Your task to perform on an android device: turn off notifications settings in the gmail app Image 0: 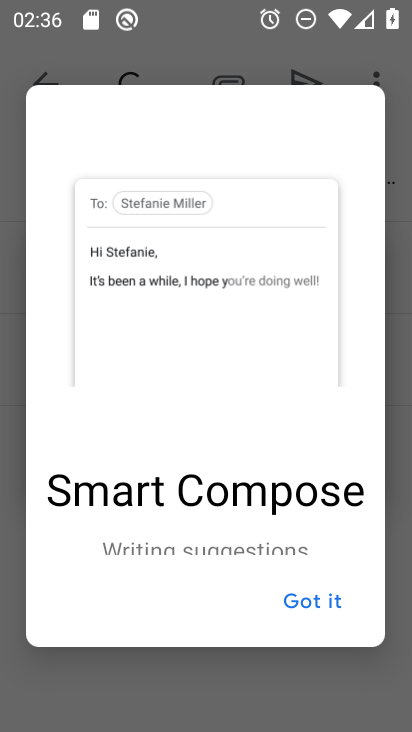
Step 0: press home button
Your task to perform on an android device: turn off notifications settings in the gmail app Image 1: 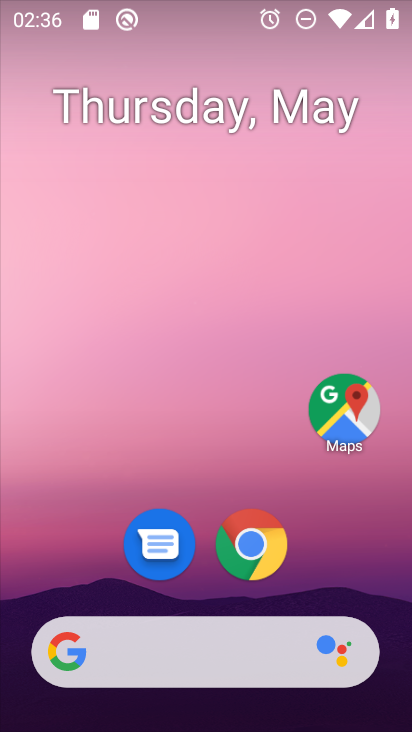
Step 1: drag from (366, 600) to (368, 208)
Your task to perform on an android device: turn off notifications settings in the gmail app Image 2: 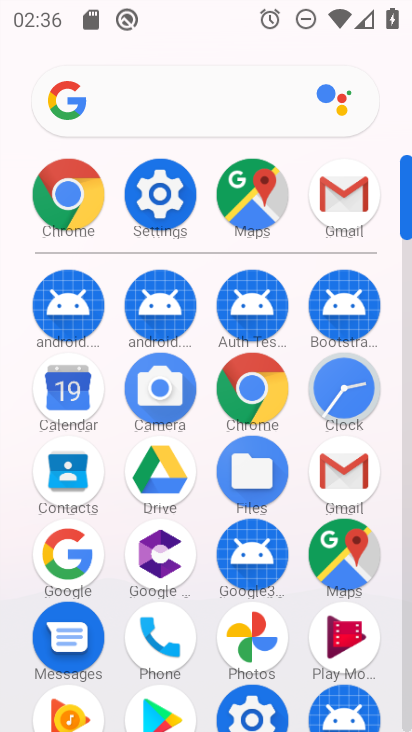
Step 2: click (356, 479)
Your task to perform on an android device: turn off notifications settings in the gmail app Image 3: 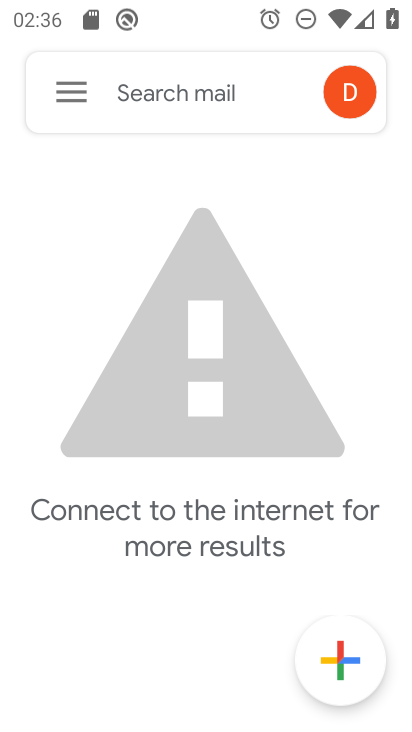
Step 3: click (74, 85)
Your task to perform on an android device: turn off notifications settings in the gmail app Image 4: 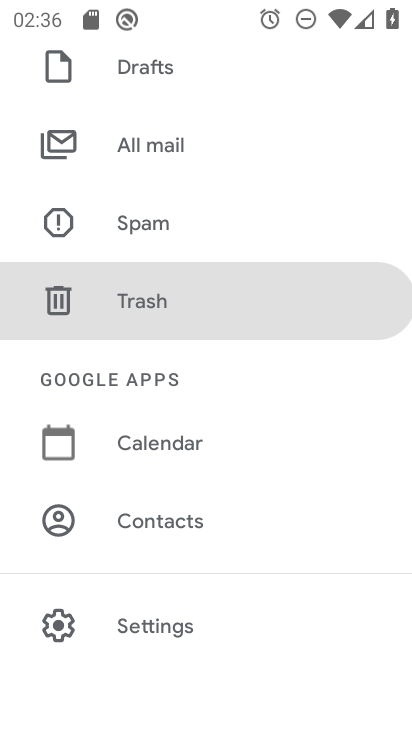
Step 4: drag from (297, 587) to (310, 403)
Your task to perform on an android device: turn off notifications settings in the gmail app Image 5: 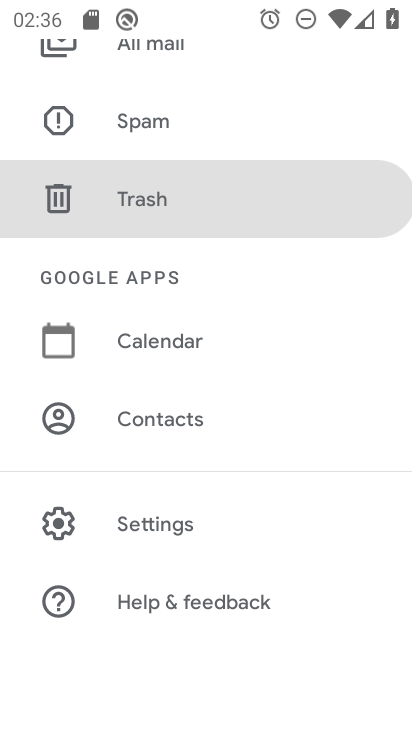
Step 5: drag from (317, 628) to (314, 462)
Your task to perform on an android device: turn off notifications settings in the gmail app Image 6: 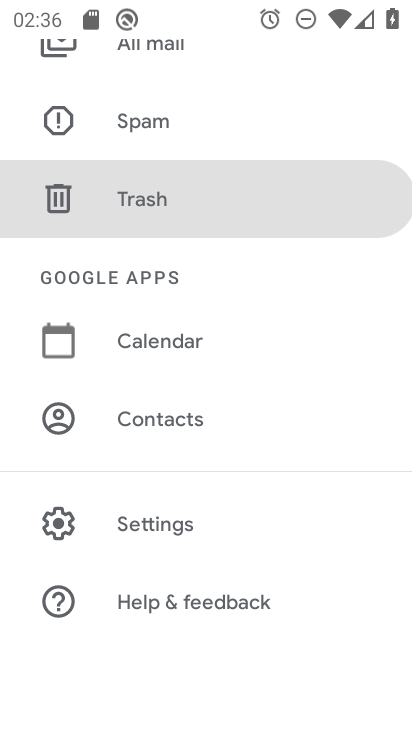
Step 6: drag from (308, 368) to (312, 477)
Your task to perform on an android device: turn off notifications settings in the gmail app Image 7: 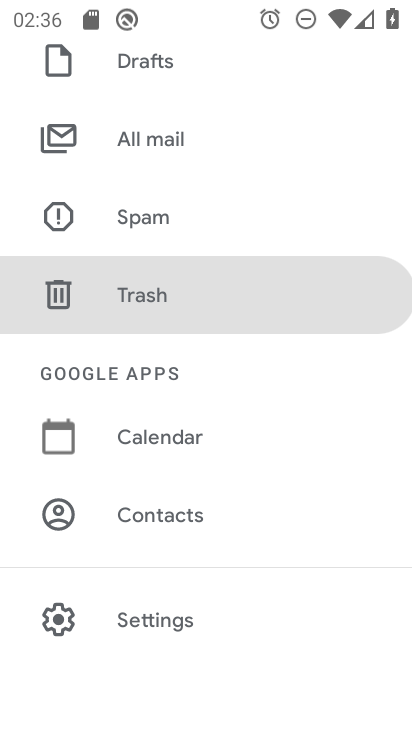
Step 7: drag from (312, 302) to (314, 443)
Your task to perform on an android device: turn off notifications settings in the gmail app Image 8: 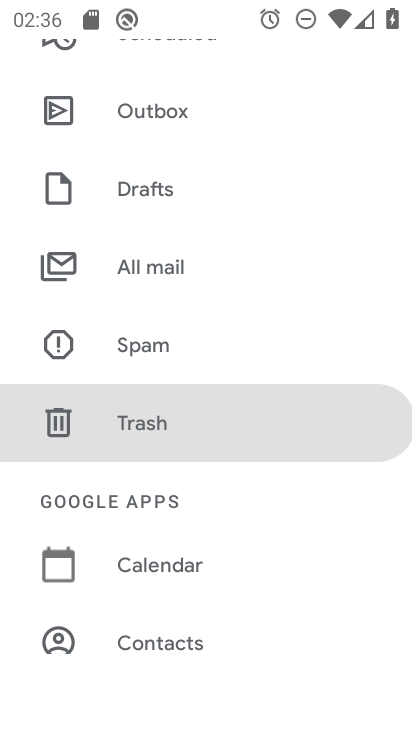
Step 8: drag from (298, 280) to (304, 362)
Your task to perform on an android device: turn off notifications settings in the gmail app Image 9: 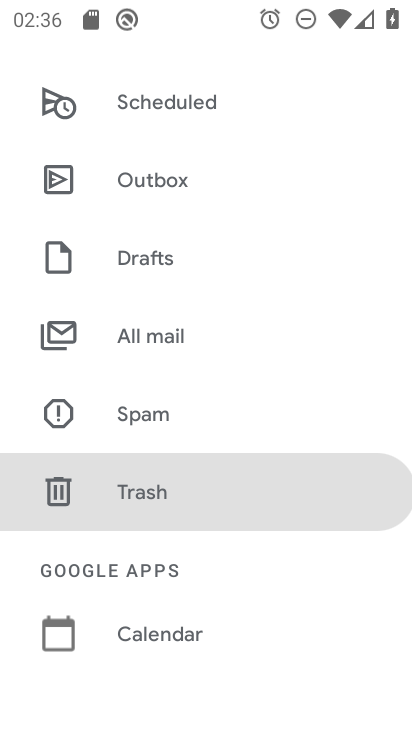
Step 9: drag from (328, 327) to (335, 406)
Your task to perform on an android device: turn off notifications settings in the gmail app Image 10: 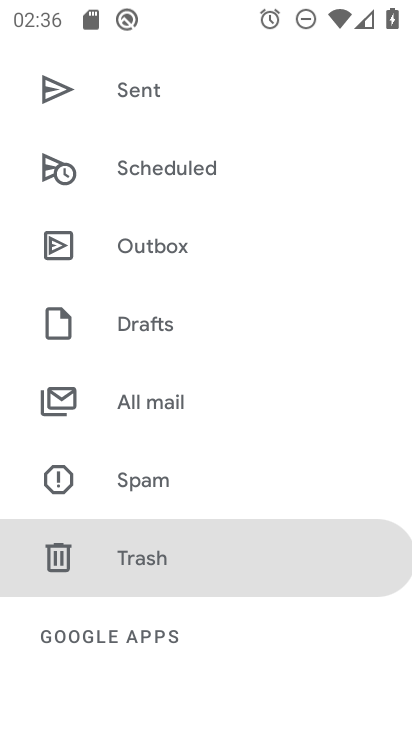
Step 10: drag from (267, 541) to (287, 424)
Your task to perform on an android device: turn off notifications settings in the gmail app Image 11: 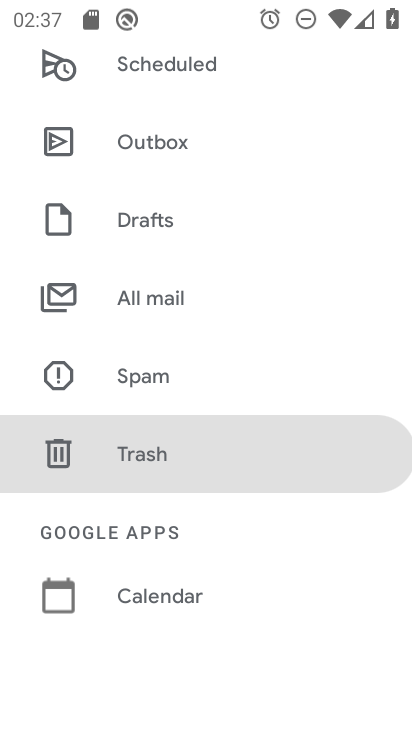
Step 11: drag from (301, 612) to (314, 483)
Your task to perform on an android device: turn off notifications settings in the gmail app Image 12: 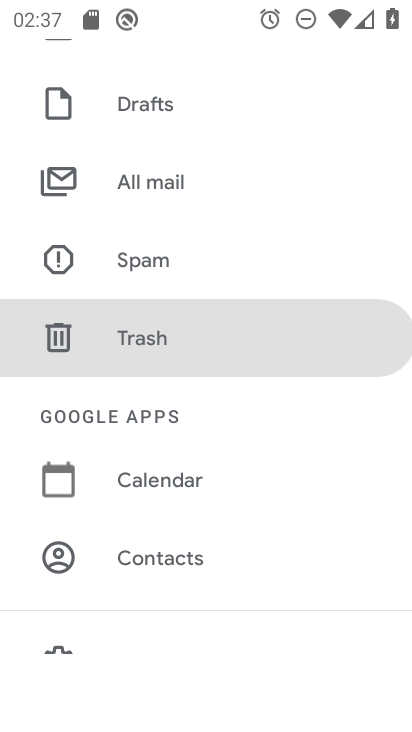
Step 12: drag from (323, 645) to (333, 550)
Your task to perform on an android device: turn off notifications settings in the gmail app Image 13: 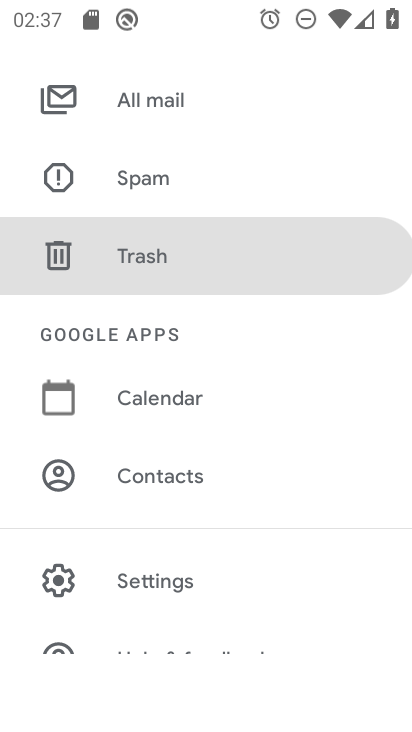
Step 13: drag from (330, 612) to (337, 466)
Your task to perform on an android device: turn off notifications settings in the gmail app Image 14: 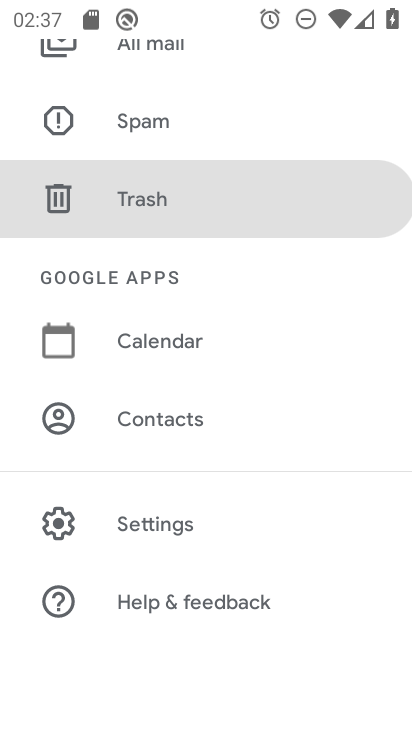
Step 14: click (234, 535)
Your task to perform on an android device: turn off notifications settings in the gmail app Image 15: 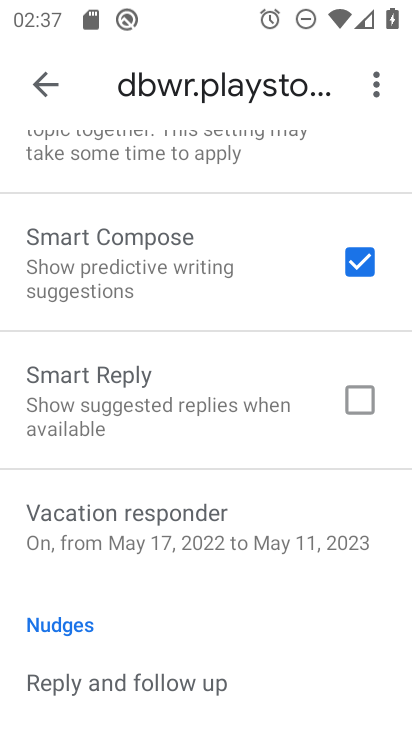
Step 15: drag from (267, 622) to (266, 490)
Your task to perform on an android device: turn off notifications settings in the gmail app Image 16: 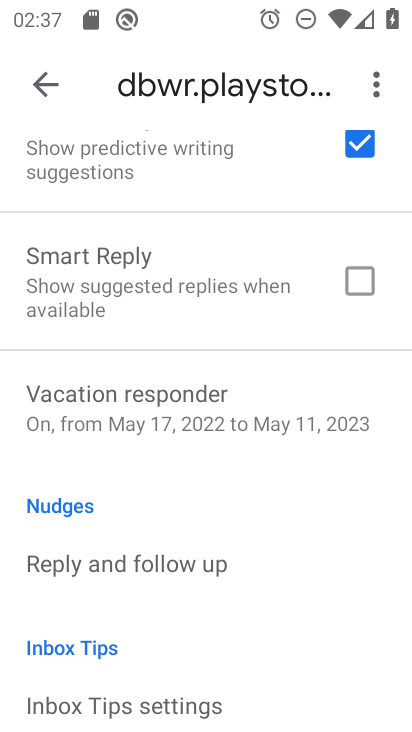
Step 16: drag from (271, 648) to (271, 571)
Your task to perform on an android device: turn off notifications settings in the gmail app Image 17: 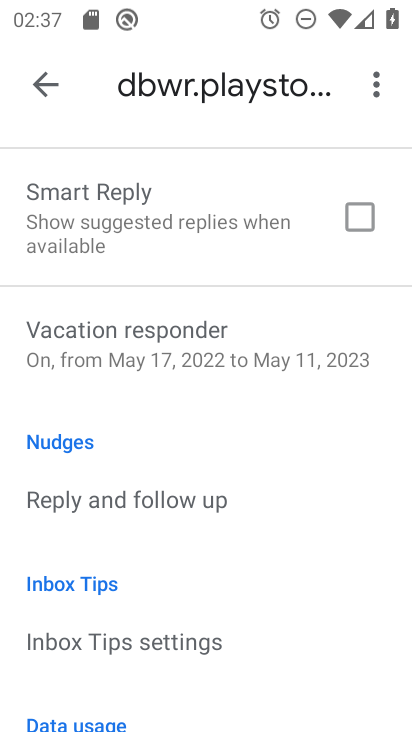
Step 17: drag from (276, 633) to (279, 572)
Your task to perform on an android device: turn off notifications settings in the gmail app Image 18: 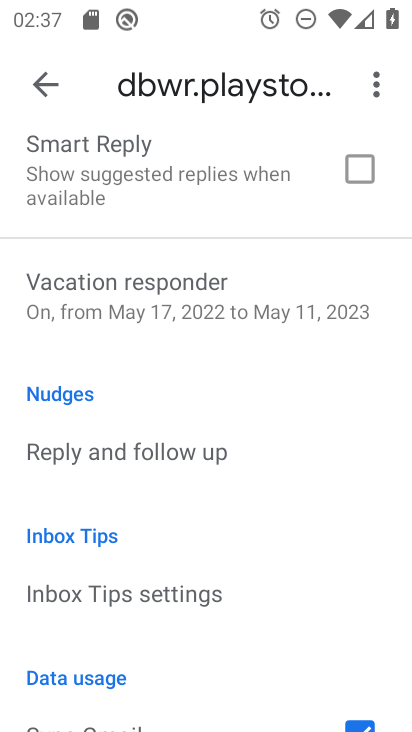
Step 18: drag from (289, 620) to (301, 560)
Your task to perform on an android device: turn off notifications settings in the gmail app Image 19: 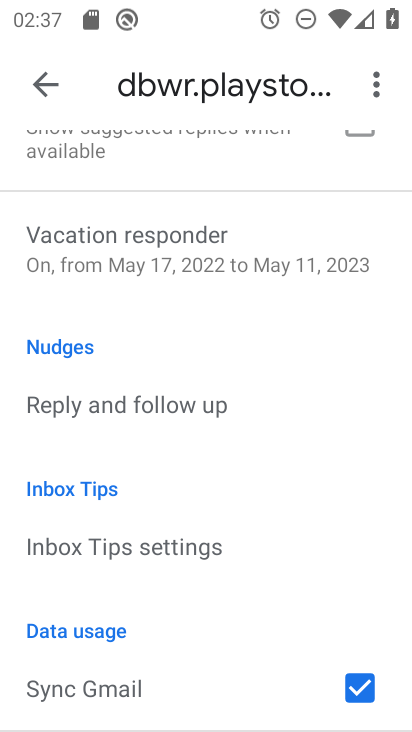
Step 19: drag from (298, 628) to (302, 539)
Your task to perform on an android device: turn off notifications settings in the gmail app Image 20: 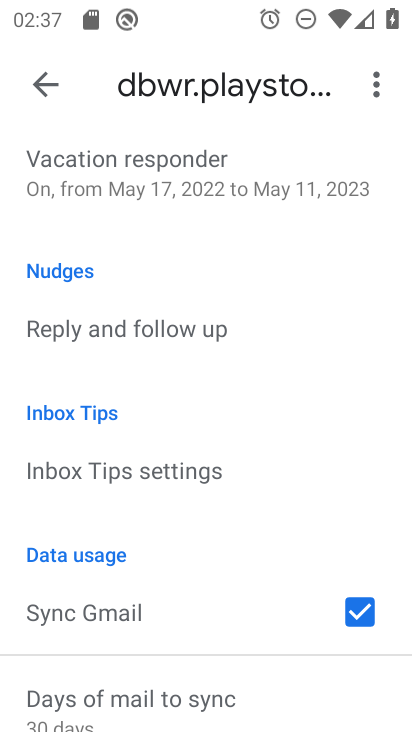
Step 20: drag from (257, 654) to (265, 569)
Your task to perform on an android device: turn off notifications settings in the gmail app Image 21: 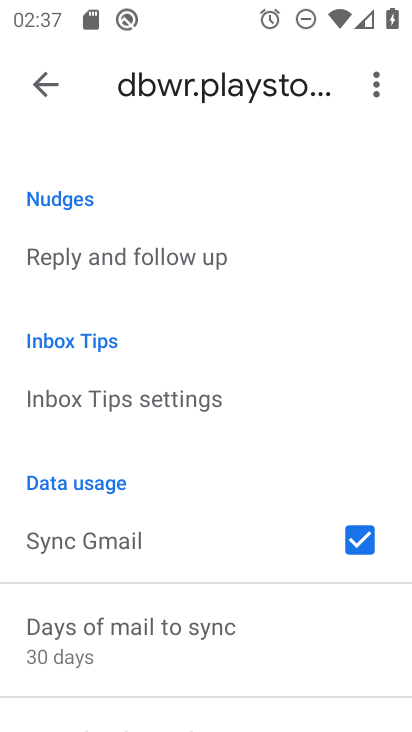
Step 21: drag from (225, 550) to (227, 428)
Your task to perform on an android device: turn off notifications settings in the gmail app Image 22: 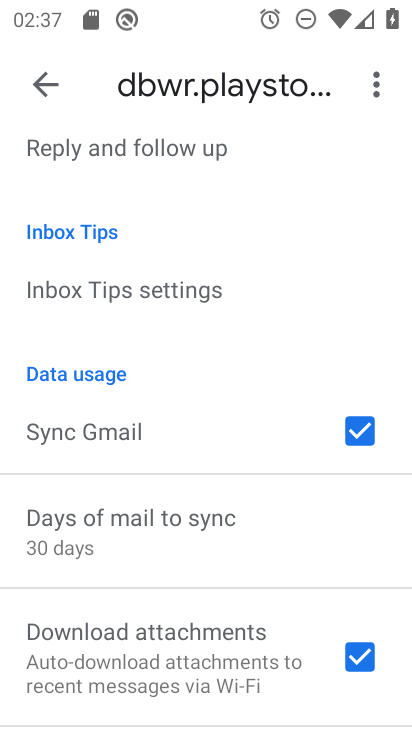
Step 22: drag from (226, 633) to (229, 447)
Your task to perform on an android device: turn off notifications settings in the gmail app Image 23: 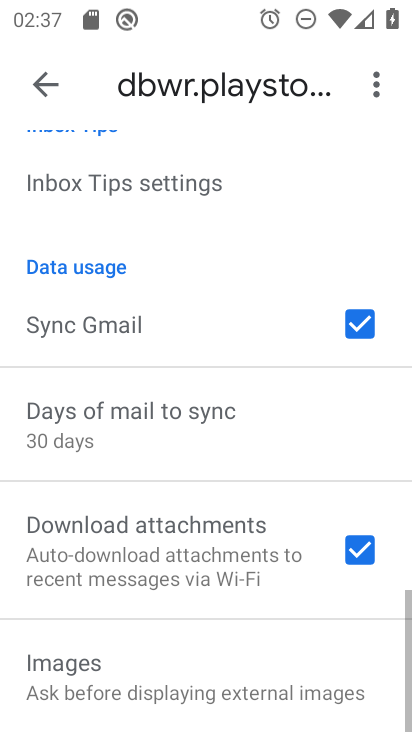
Step 23: drag from (197, 649) to (232, 413)
Your task to perform on an android device: turn off notifications settings in the gmail app Image 24: 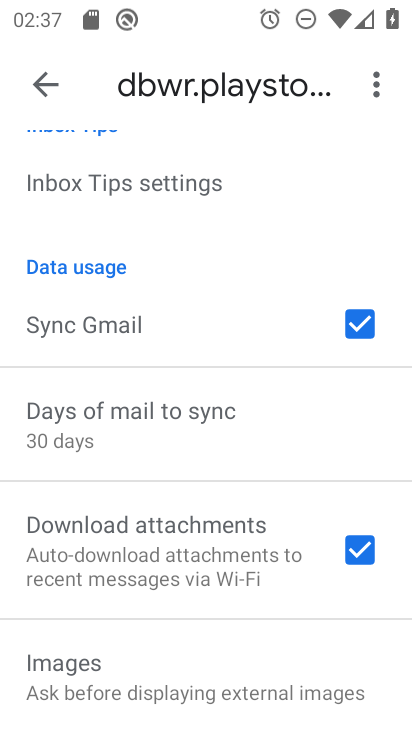
Step 24: drag from (195, 233) to (206, 408)
Your task to perform on an android device: turn off notifications settings in the gmail app Image 25: 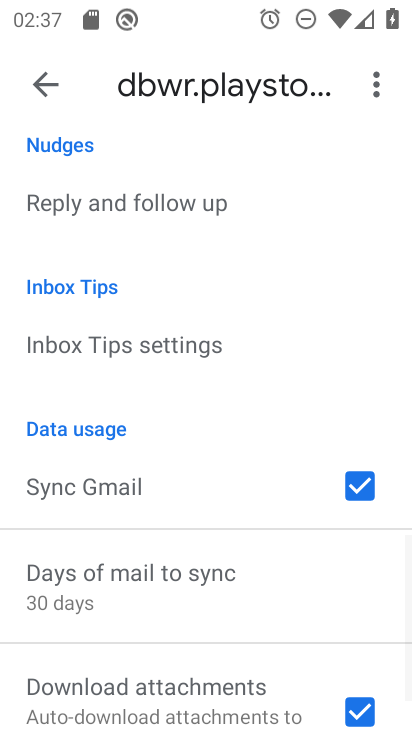
Step 25: drag from (216, 232) to (211, 397)
Your task to perform on an android device: turn off notifications settings in the gmail app Image 26: 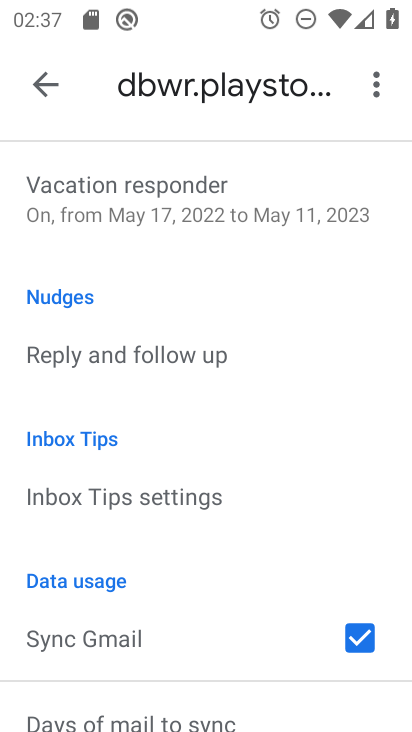
Step 26: drag from (204, 197) to (203, 390)
Your task to perform on an android device: turn off notifications settings in the gmail app Image 27: 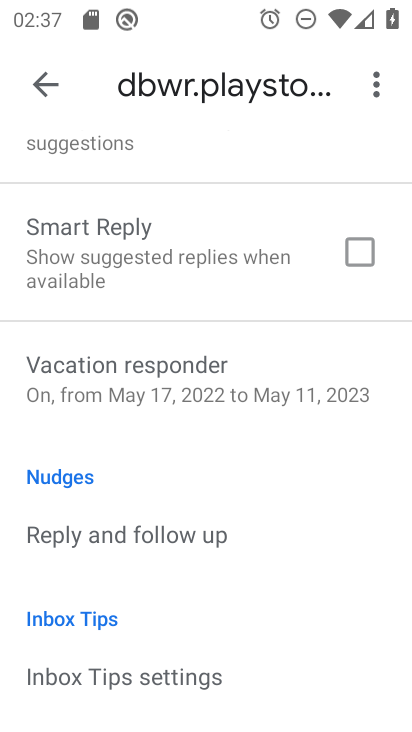
Step 27: drag from (199, 172) to (210, 338)
Your task to perform on an android device: turn off notifications settings in the gmail app Image 28: 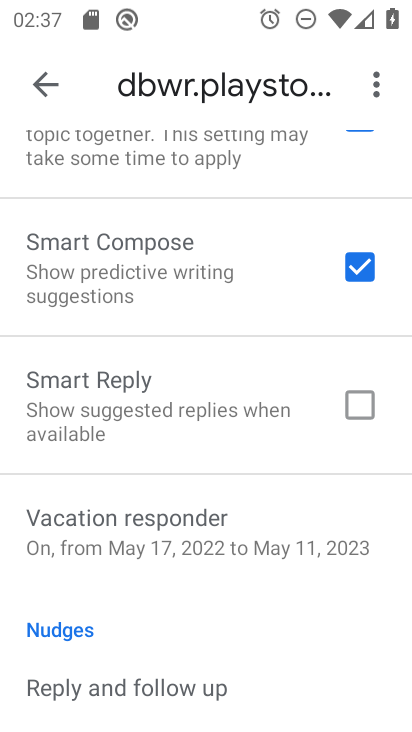
Step 28: drag from (224, 179) to (234, 316)
Your task to perform on an android device: turn off notifications settings in the gmail app Image 29: 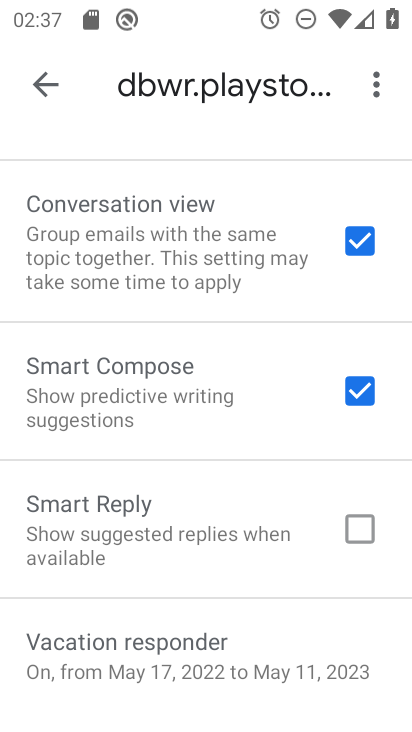
Step 29: drag from (211, 155) to (212, 289)
Your task to perform on an android device: turn off notifications settings in the gmail app Image 30: 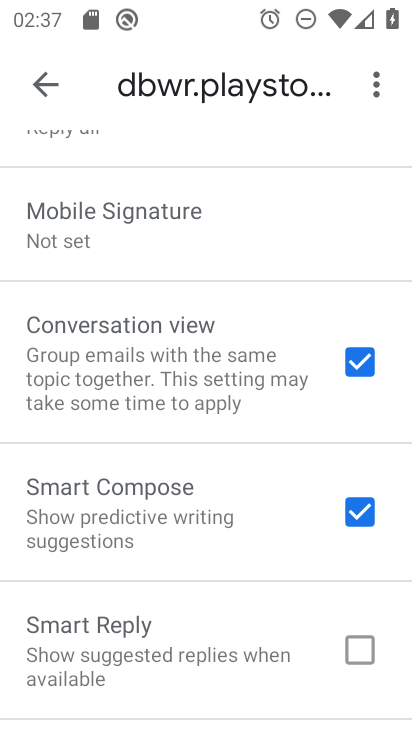
Step 30: drag from (211, 206) to (220, 316)
Your task to perform on an android device: turn off notifications settings in the gmail app Image 31: 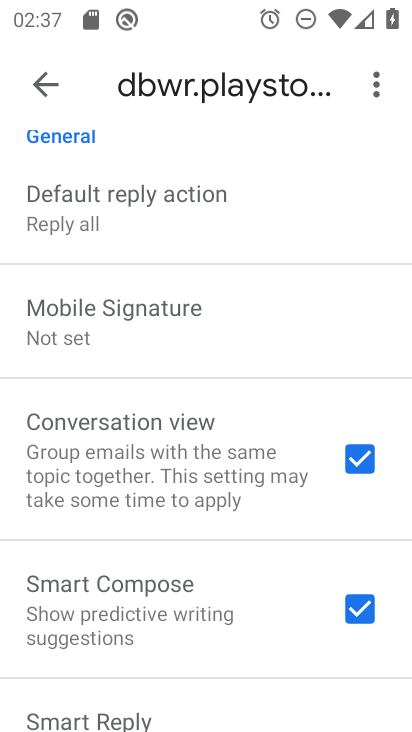
Step 31: drag from (247, 200) to (260, 436)
Your task to perform on an android device: turn off notifications settings in the gmail app Image 32: 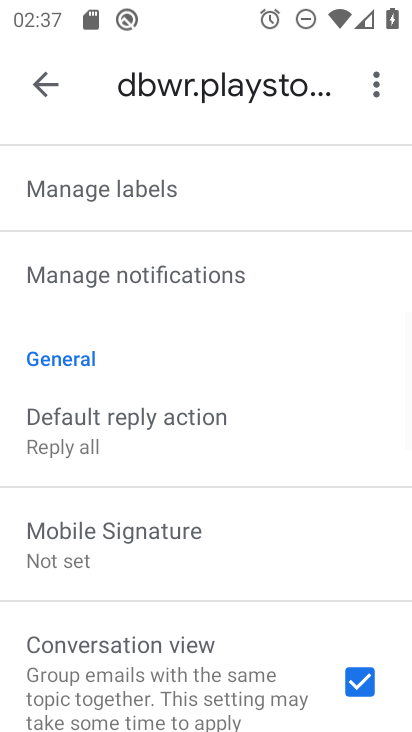
Step 32: click (211, 277)
Your task to perform on an android device: turn off notifications settings in the gmail app Image 33: 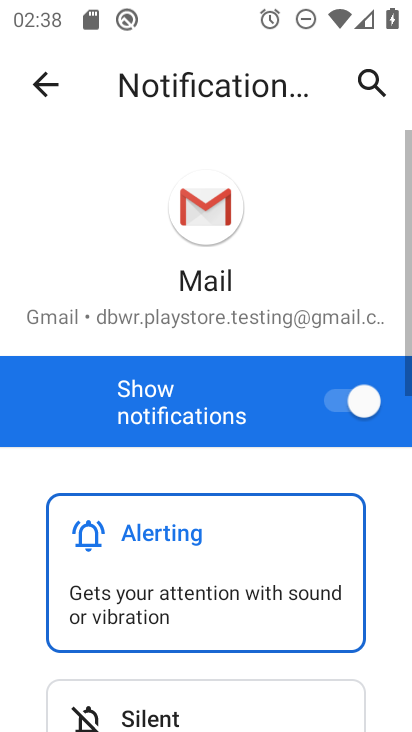
Step 33: click (362, 407)
Your task to perform on an android device: turn off notifications settings in the gmail app Image 34: 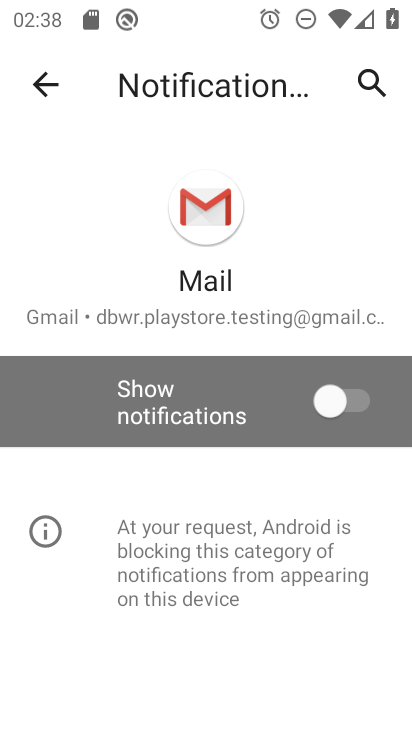
Step 34: task complete